Your task to perform on an android device: set the timer Image 0: 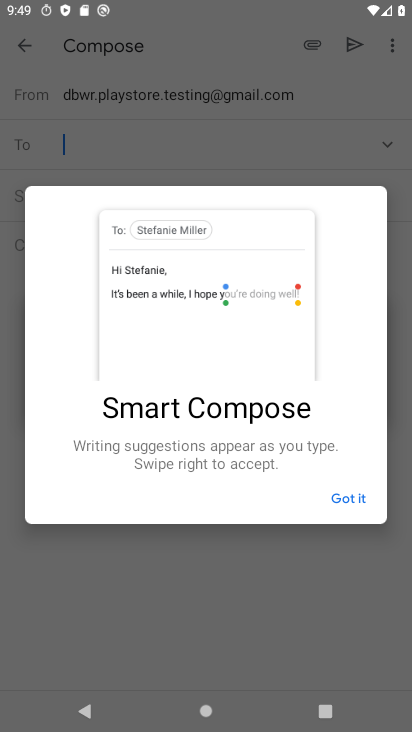
Step 0: click (351, 497)
Your task to perform on an android device: set the timer Image 1: 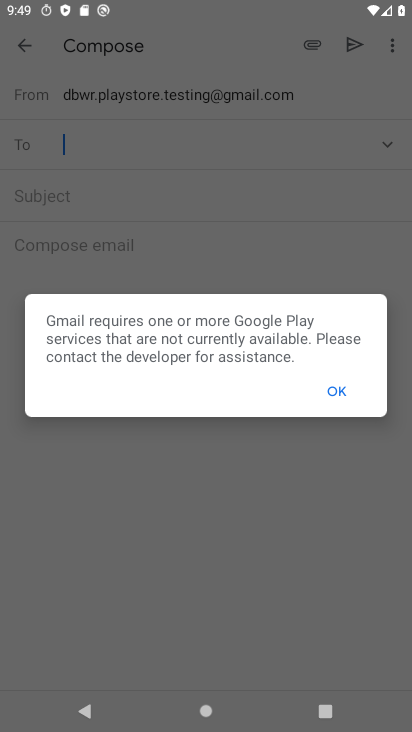
Step 1: click (330, 400)
Your task to perform on an android device: set the timer Image 2: 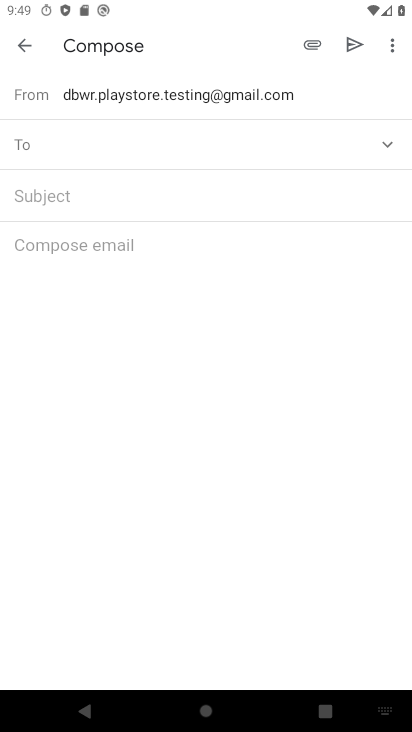
Step 2: click (28, 43)
Your task to perform on an android device: set the timer Image 3: 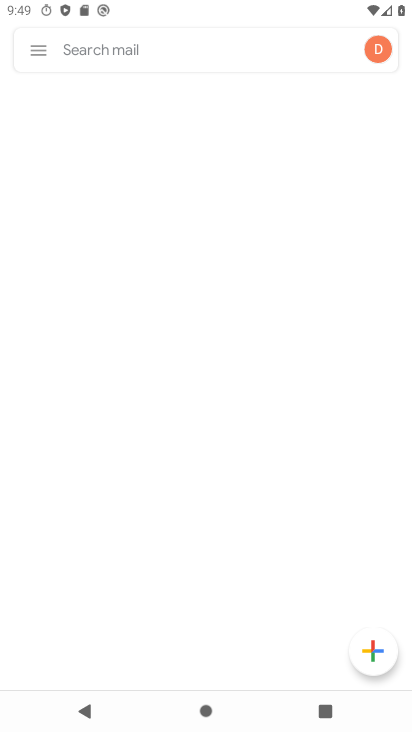
Step 3: press back button
Your task to perform on an android device: set the timer Image 4: 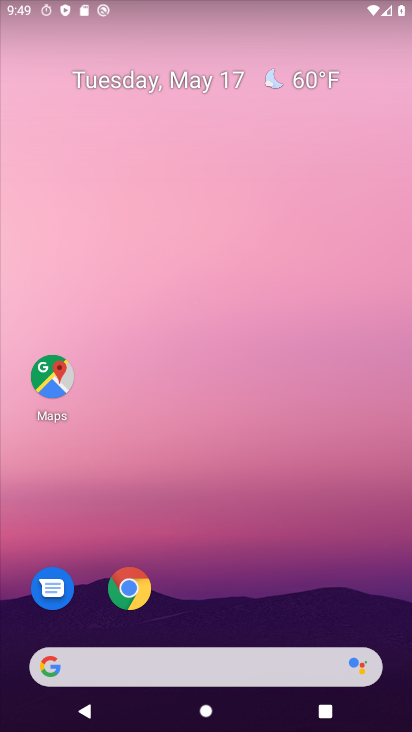
Step 4: drag from (299, 658) to (123, 30)
Your task to perform on an android device: set the timer Image 5: 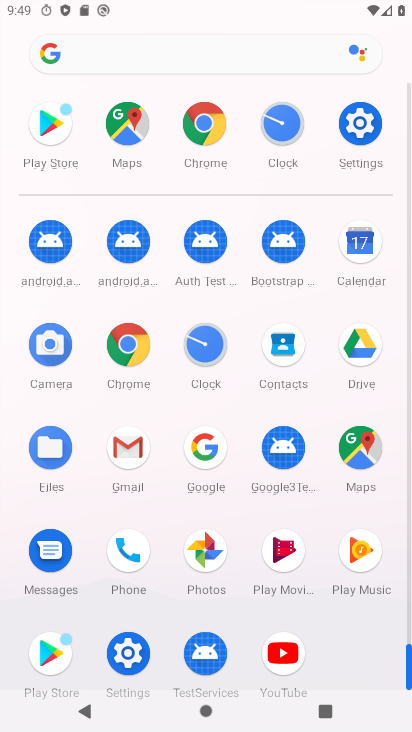
Step 5: click (284, 125)
Your task to perform on an android device: set the timer Image 6: 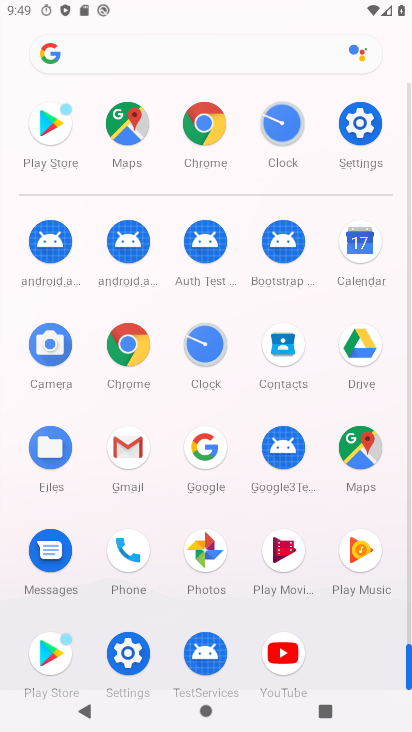
Step 6: click (283, 125)
Your task to perform on an android device: set the timer Image 7: 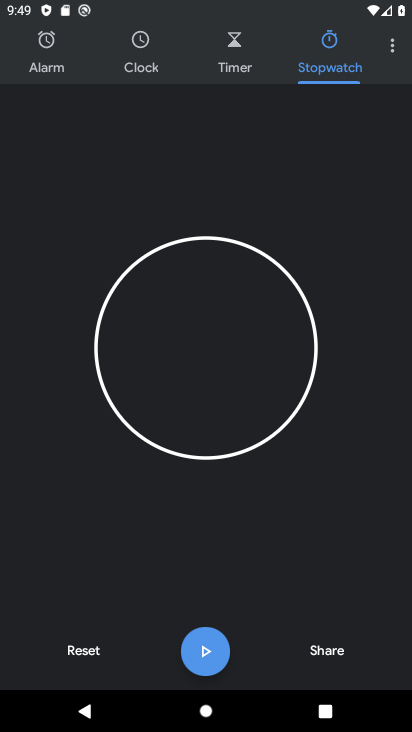
Step 7: click (278, 124)
Your task to perform on an android device: set the timer Image 8: 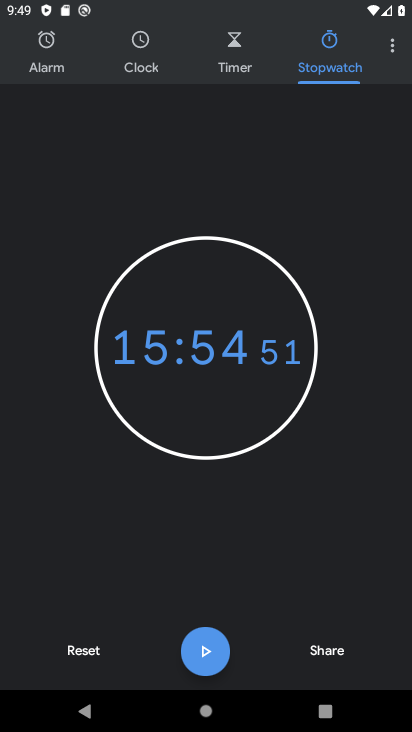
Step 8: click (225, 53)
Your task to perform on an android device: set the timer Image 9: 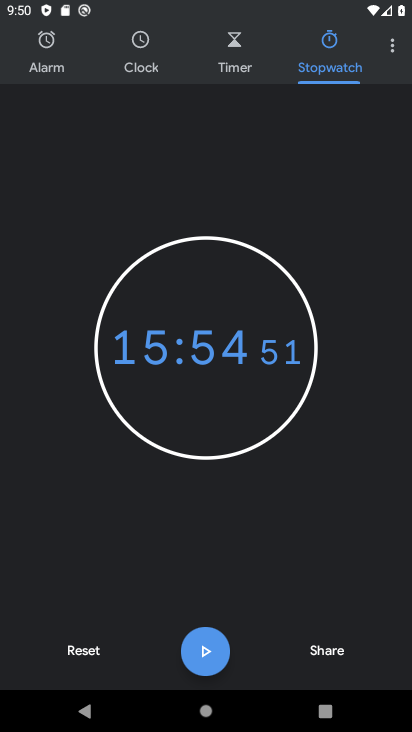
Step 9: click (209, 643)
Your task to perform on an android device: set the timer Image 10: 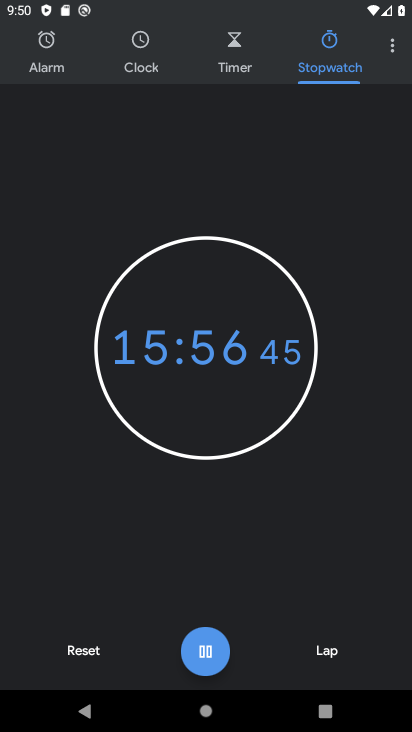
Step 10: click (209, 643)
Your task to perform on an android device: set the timer Image 11: 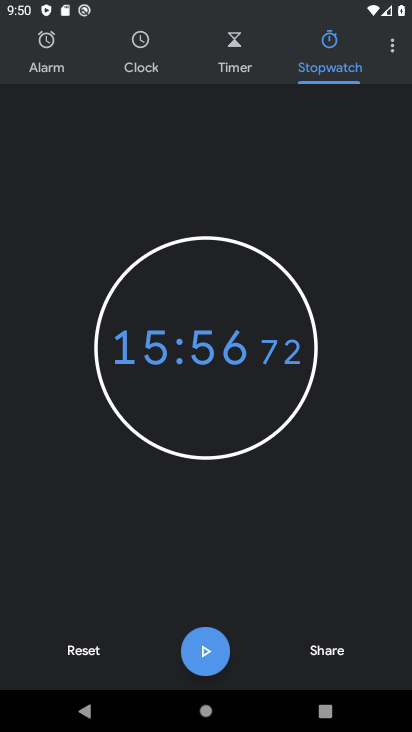
Step 11: task complete